Your task to perform on an android device: turn on priority inbox in the gmail app Image 0: 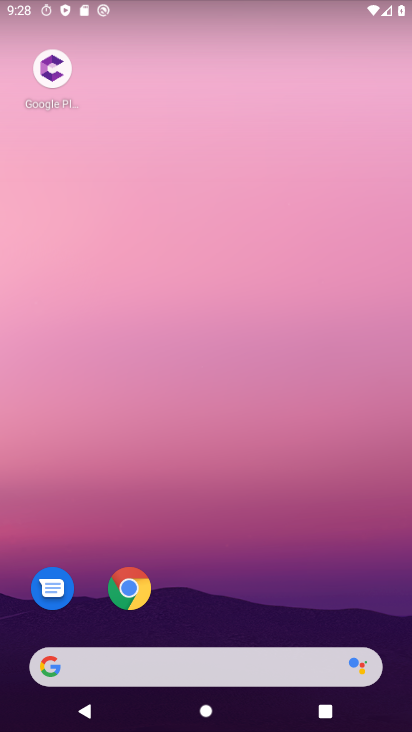
Step 0: drag from (248, 594) to (311, 349)
Your task to perform on an android device: turn on priority inbox in the gmail app Image 1: 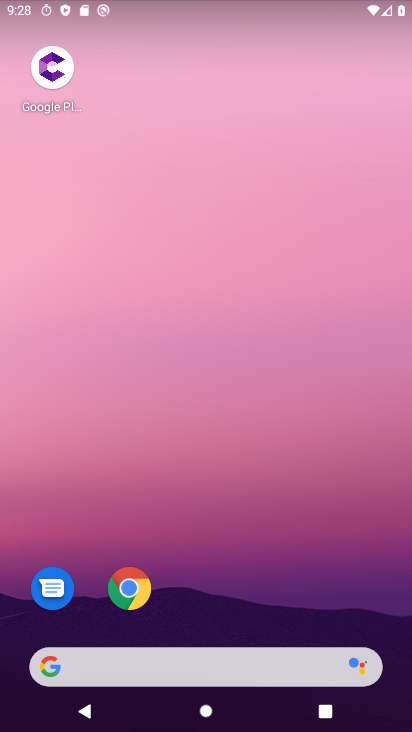
Step 1: drag from (261, 592) to (260, 212)
Your task to perform on an android device: turn on priority inbox in the gmail app Image 2: 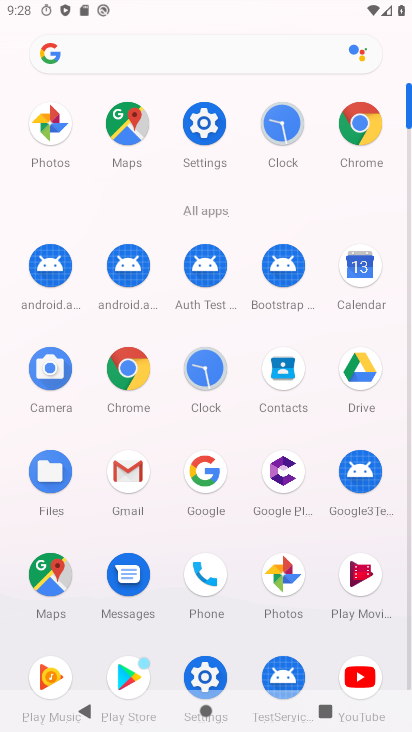
Step 2: click (120, 476)
Your task to perform on an android device: turn on priority inbox in the gmail app Image 3: 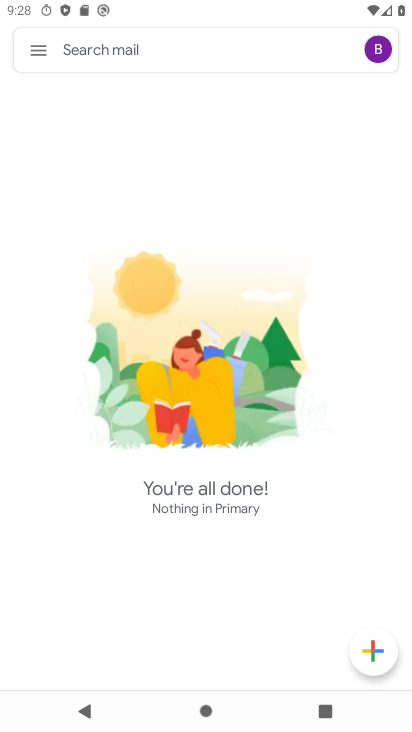
Step 3: click (44, 50)
Your task to perform on an android device: turn on priority inbox in the gmail app Image 4: 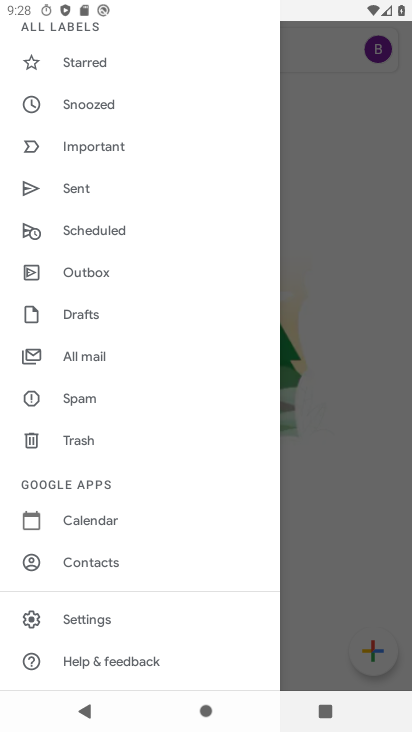
Step 4: click (62, 618)
Your task to perform on an android device: turn on priority inbox in the gmail app Image 5: 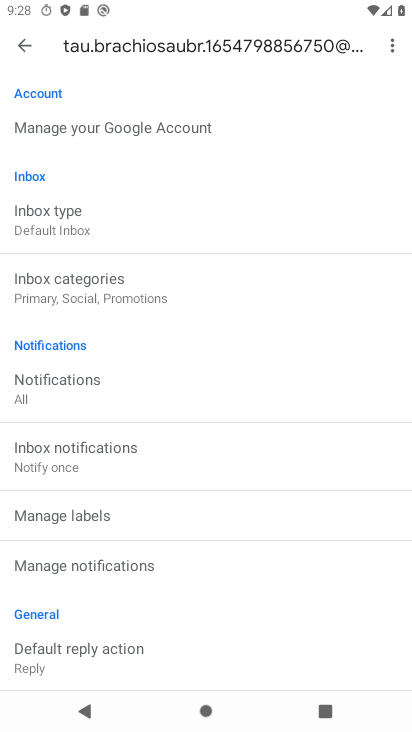
Step 5: click (85, 207)
Your task to perform on an android device: turn on priority inbox in the gmail app Image 6: 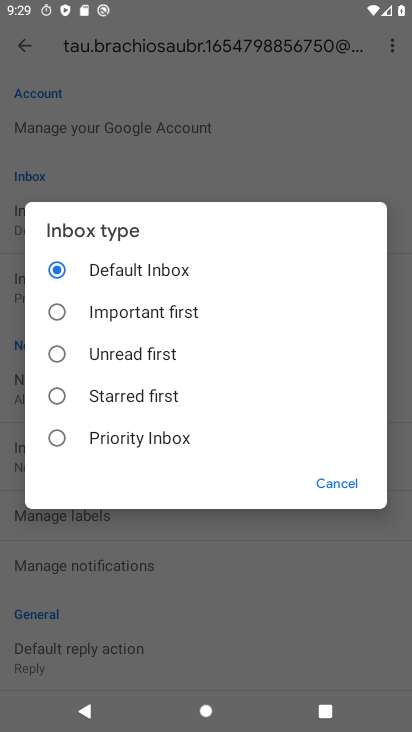
Step 6: click (74, 429)
Your task to perform on an android device: turn on priority inbox in the gmail app Image 7: 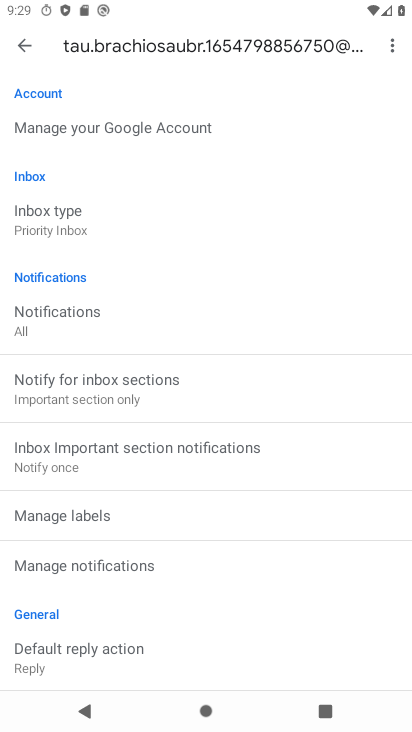
Step 7: task complete